Your task to perform on an android device: change the clock style Image 0: 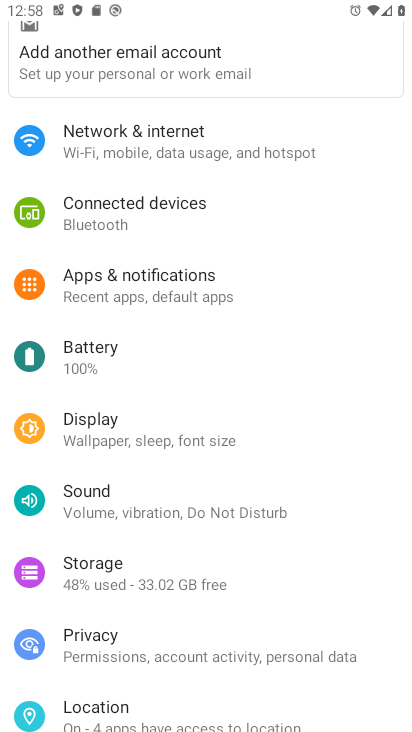
Step 0: click (269, 645)
Your task to perform on an android device: change the clock style Image 1: 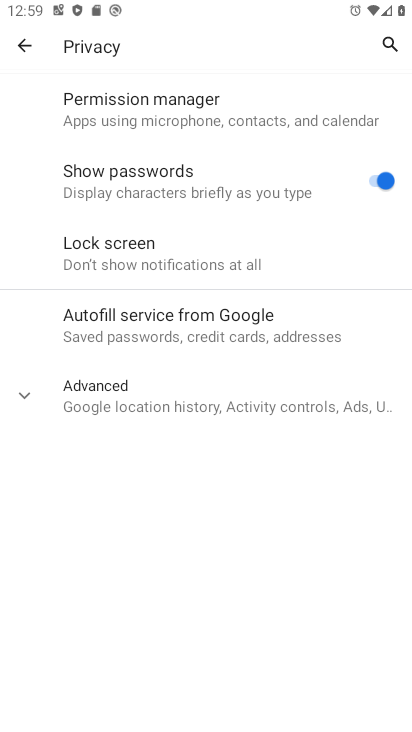
Step 1: click (181, 383)
Your task to perform on an android device: change the clock style Image 2: 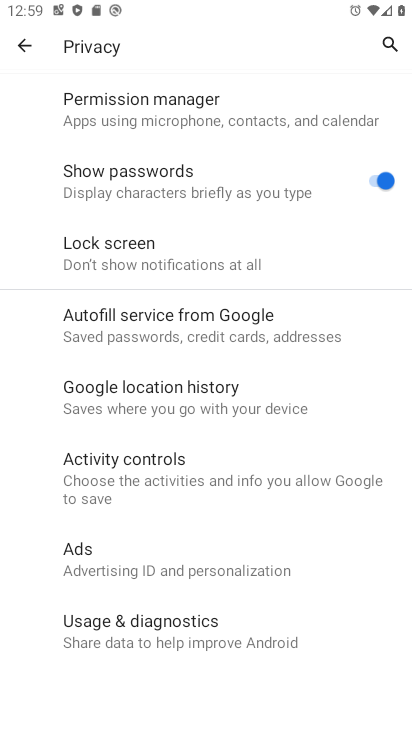
Step 2: task complete